Your task to perform on an android device: empty trash in the gmail app Image 0: 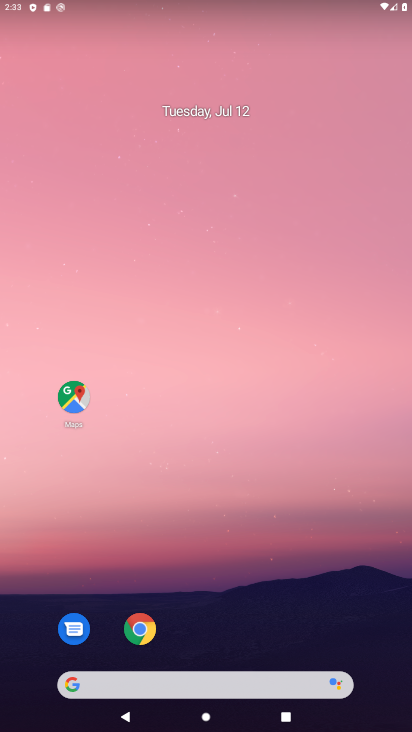
Step 0: drag from (255, 118) to (262, 77)
Your task to perform on an android device: empty trash in the gmail app Image 1: 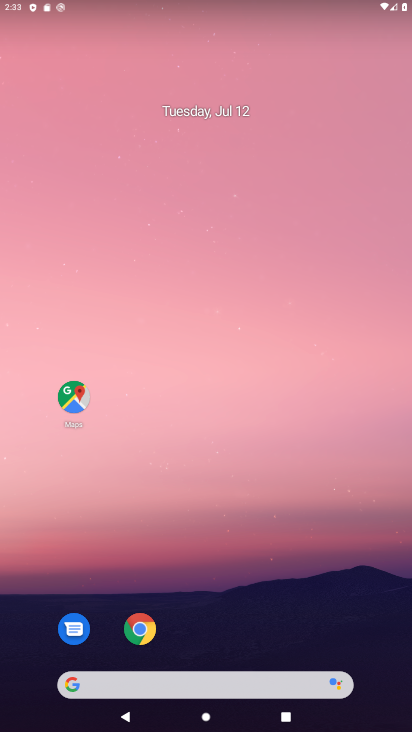
Step 1: drag from (237, 656) to (330, 101)
Your task to perform on an android device: empty trash in the gmail app Image 2: 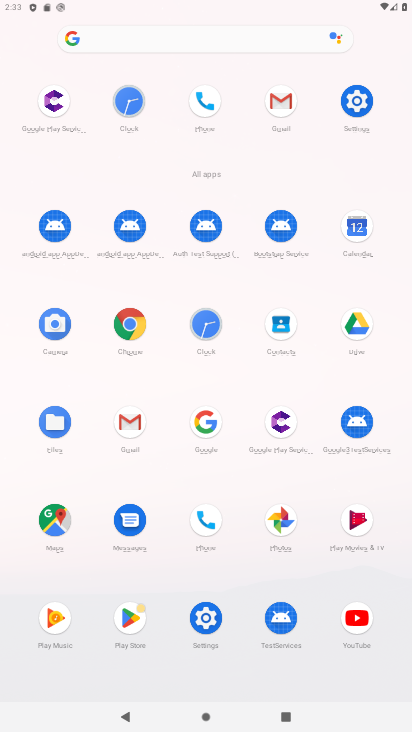
Step 2: click (280, 99)
Your task to perform on an android device: empty trash in the gmail app Image 3: 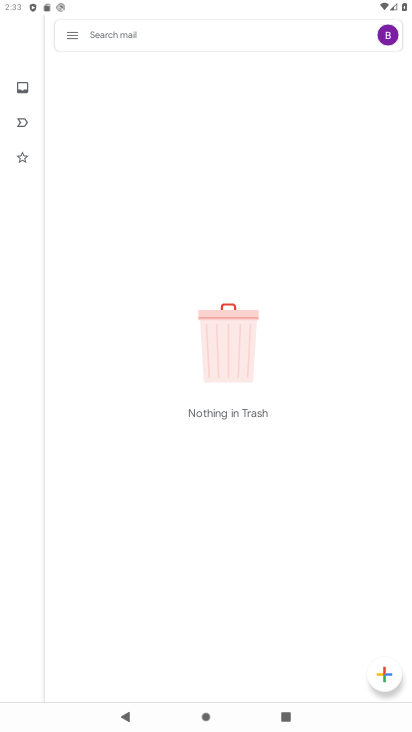
Step 3: task complete